Your task to perform on an android device: Clear the shopping cart on newegg.com. Search for "usb-a" on newegg.com, select the first entry, add it to the cart, then select checkout. Image 0: 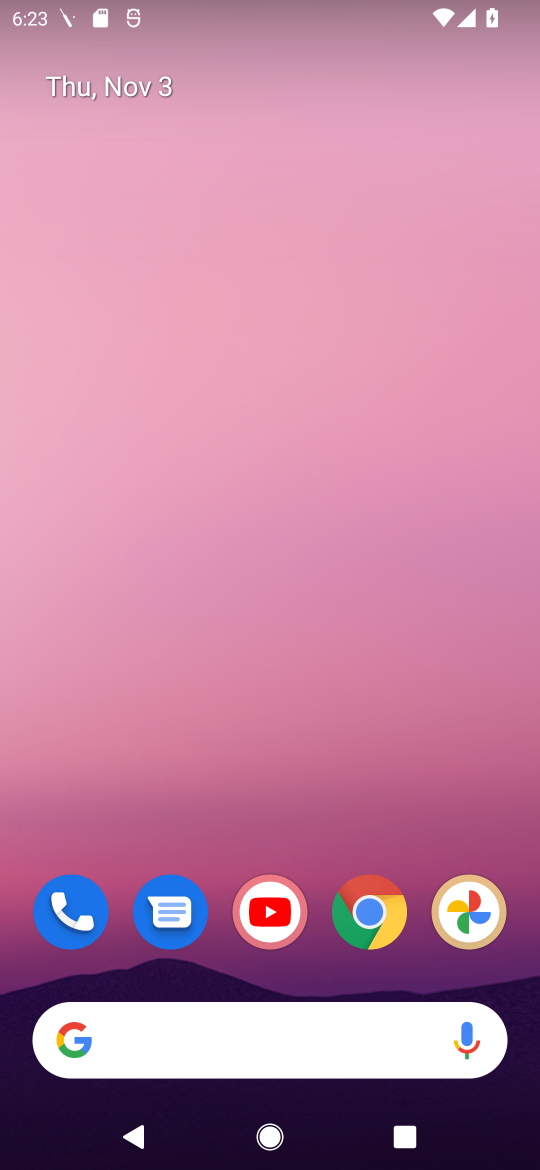
Step 0: click (373, 916)
Your task to perform on an android device: Clear the shopping cart on newegg.com. Search for "usb-a" on newegg.com, select the first entry, add it to the cart, then select checkout. Image 1: 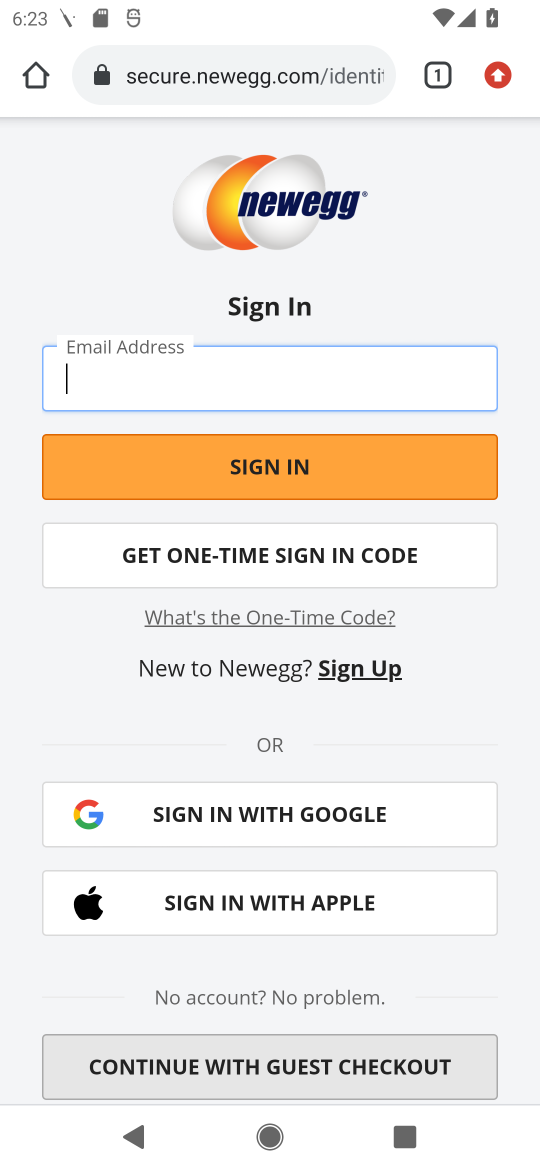
Step 1: press back button
Your task to perform on an android device: Clear the shopping cart on newegg.com. Search for "usb-a" on newegg.com, select the first entry, add it to the cart, then select checkout. Image 2: 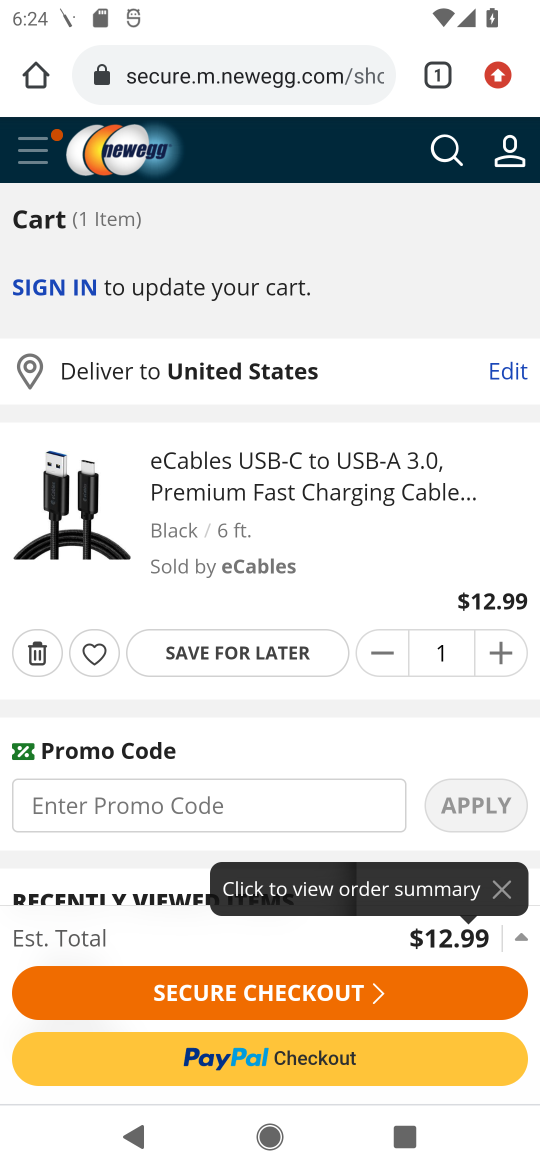
Step 2: click (438, 147)
Your task to perform on an android device: Clear the shopping cart on newegg.com. Search for "usb-a" on newegg.com, select the first entry, add it to the cart, then select checkout. Image 3: 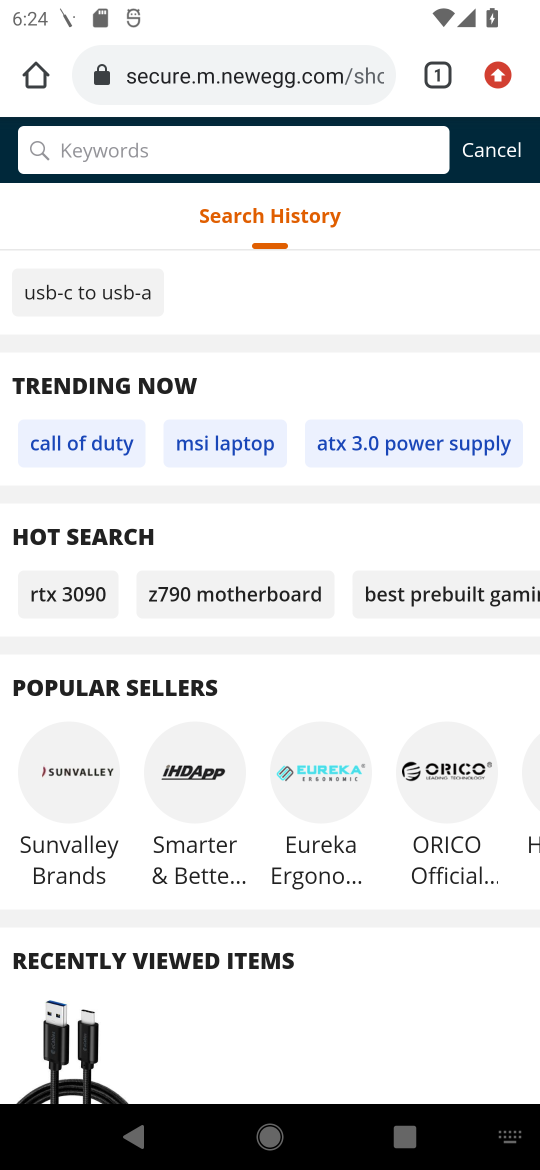
Step 3: click (482, 155)
Your task to perform on an android device: Clear the shopping cart on newegg.com. Search for "usb-a" on newegg.com, select the first entry, add it to the cart, then select checkout. Image 4: 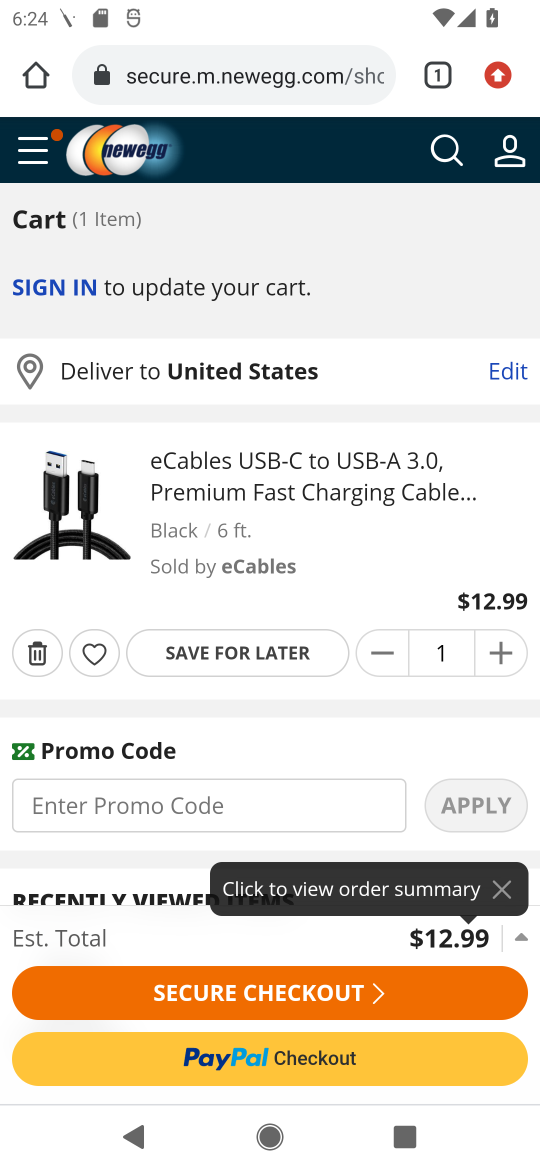
Step 4: click (41, 652)
Your task to perform on an android device: Clear the shopping cart on newegg.com. Search for "usb-a" on newegg.com, select the first entry, add it to the cart, then select checkout. Image 5: 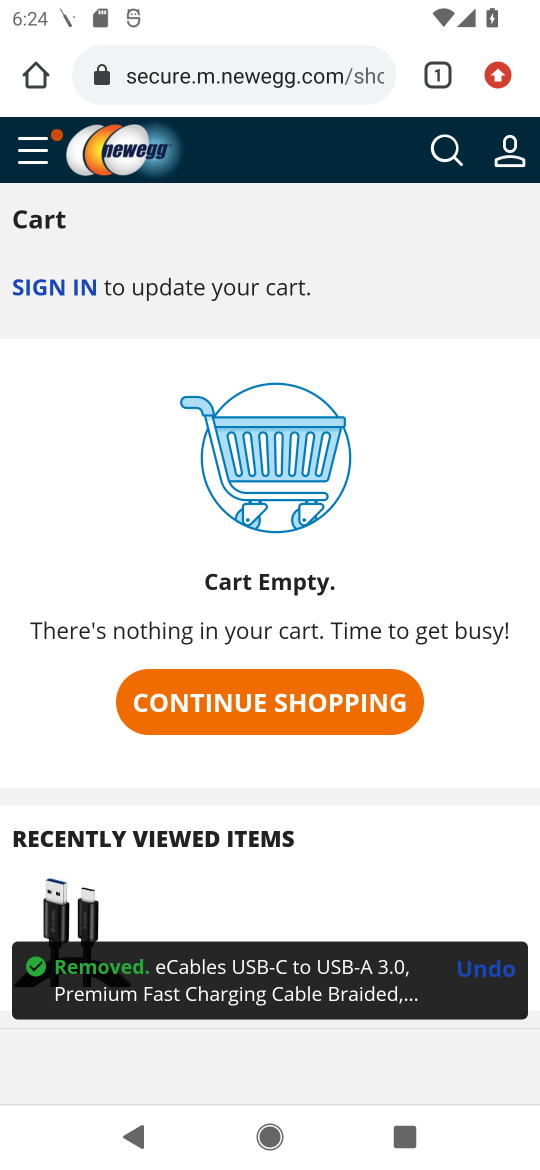
Step 5: click (253, 699)
Your task to perform on an android device: Clear the shopping cart on newegg.com. Search for "usb-a" on newegg.com, select the first entry, add it to the cart, then select checkout. Image 6: 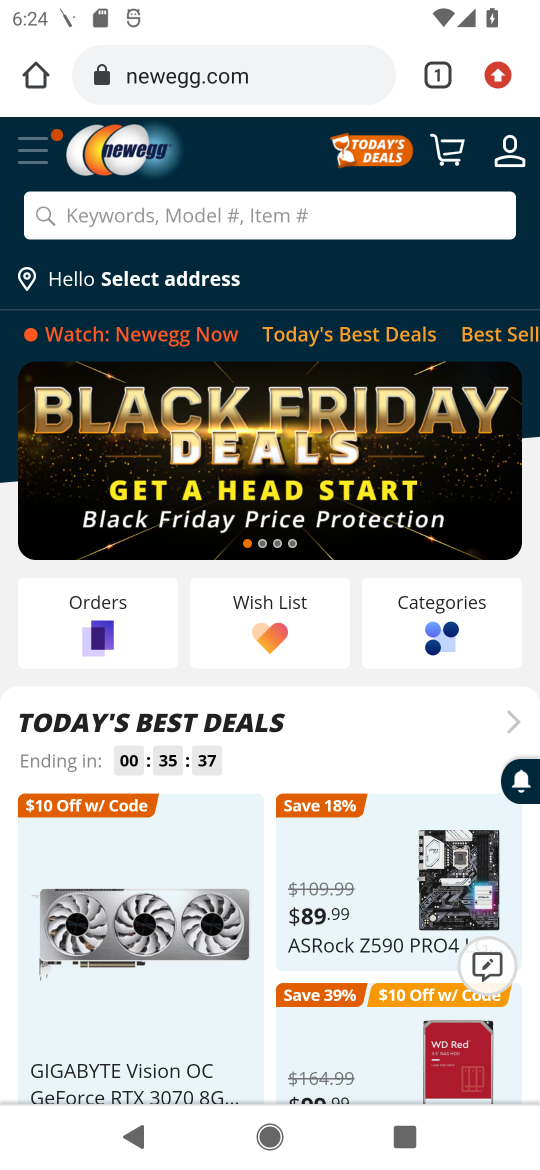
Step 6: click (217, 206)
Your task to perform on an android device: Clear the shopping cart on newegg.com. Search for "usb-a" on newegg.com, select the first entry, add it to the cart, then select checkout. Image 7: 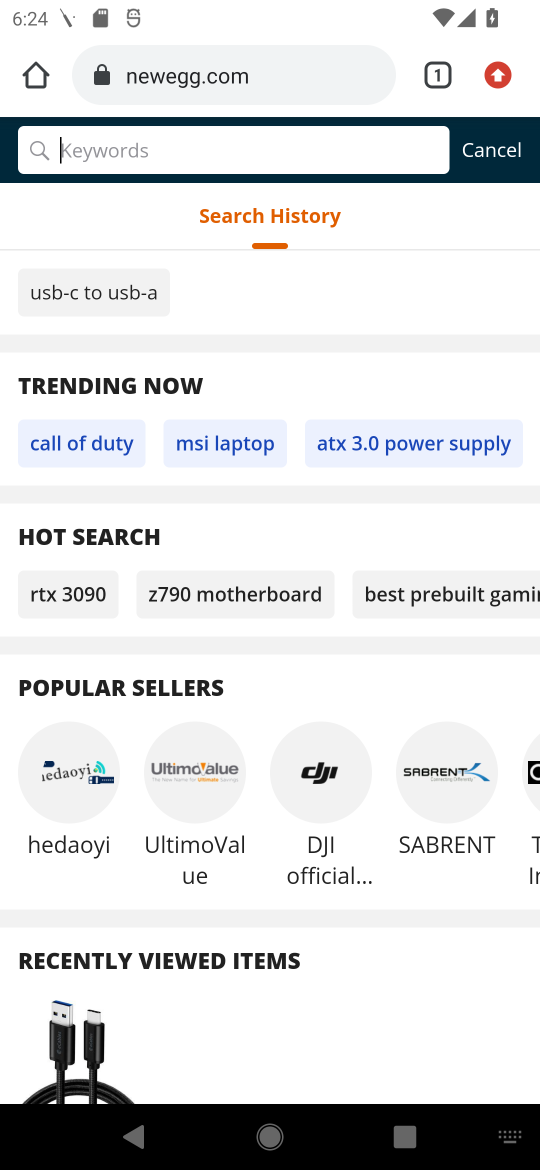
Step 7: type "usb-a"
Your task to perform on an android device: Clear the shopping cart on newegg.com. Search for "usb-a" on newegg.com, select the first entry, add it to the cart, then select checkout. Image 8: 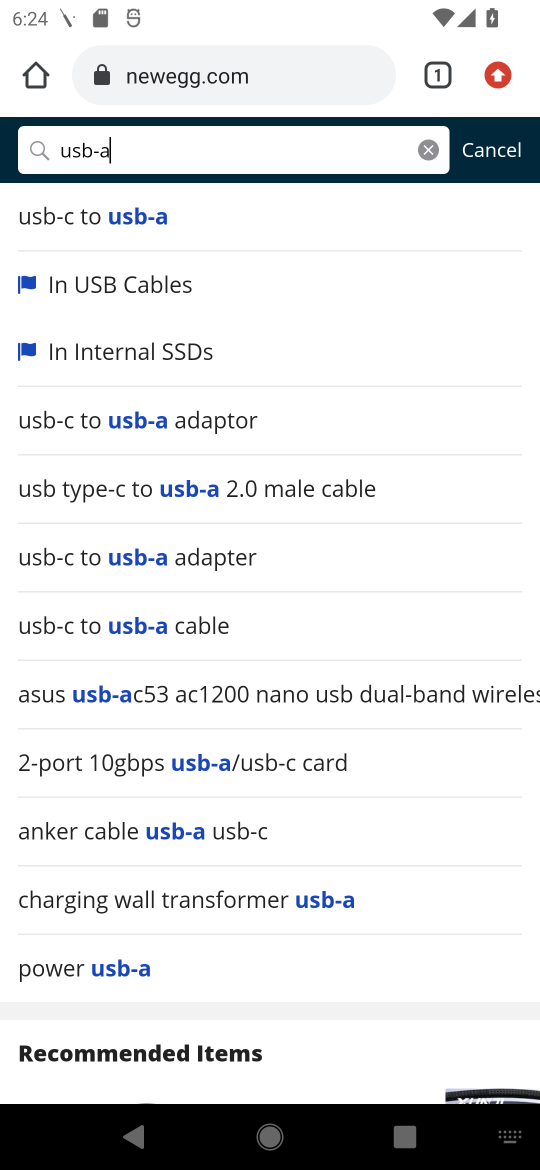
Step 8: click (65, 211)
Your task to perform on an android device: Clear the shopping cart on newegg.com. Search for "usb-a" on newegg.com, select the first entry, add it to the cart, then select checkout. Image 9: 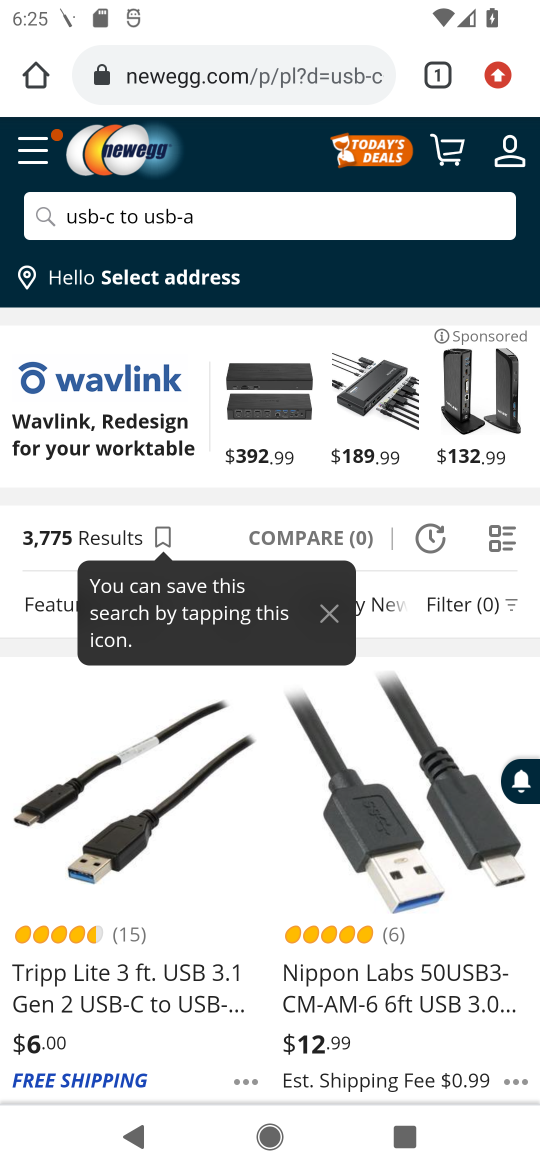
Step 9: drag from (241, 1036) to (224, 460)
Your task to perform on an android device: Clear the shopping cart on newegg.com. Search for "usb-a" on newegg.com, select the first entry, add it to the cart, then select checkout. Image 10: 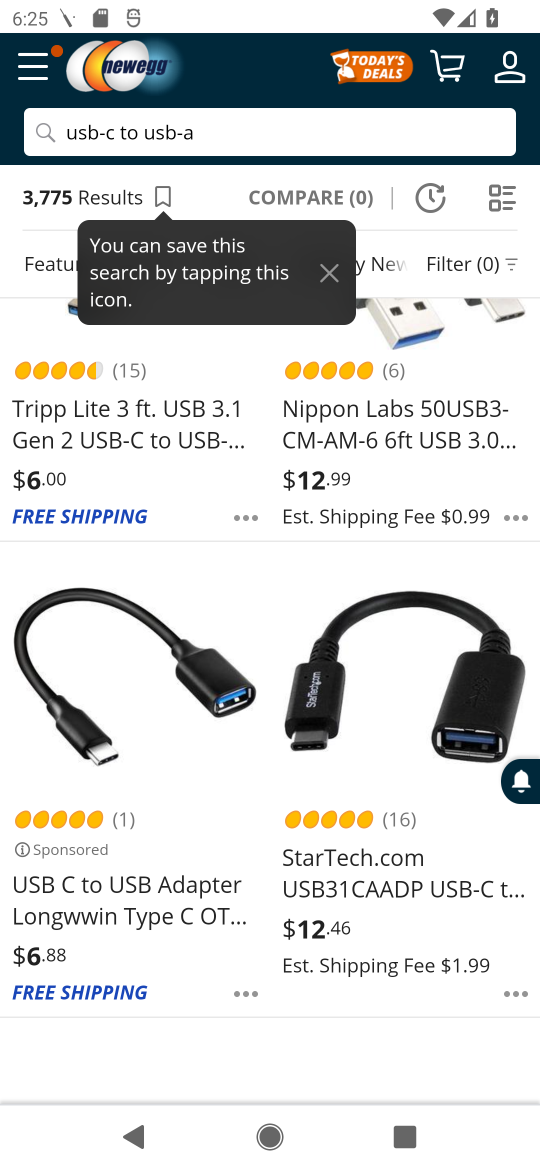
Step 10: drag from (257, 1003) to (254, 467)
Your task to perform on an android device: Clear the shopping cart on newegg.com. Search for "usb-a" on newegg.com, select the first entry, add it to the cart, then select checkout. Image 11: 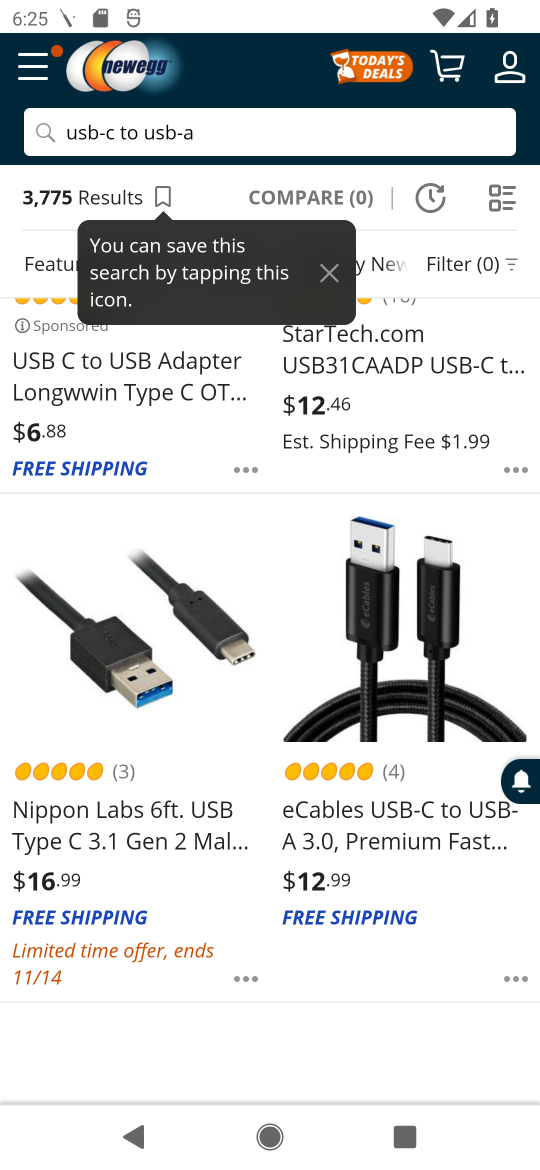
Step 11: drag from (245, 525) to (188, 1123)
Your task to perform on an android device: Clear the shopping cart on newegg.com. Search for "usb-a" on newegg.com, select the first entry, add it to the cart, then select checkout. Image 12: 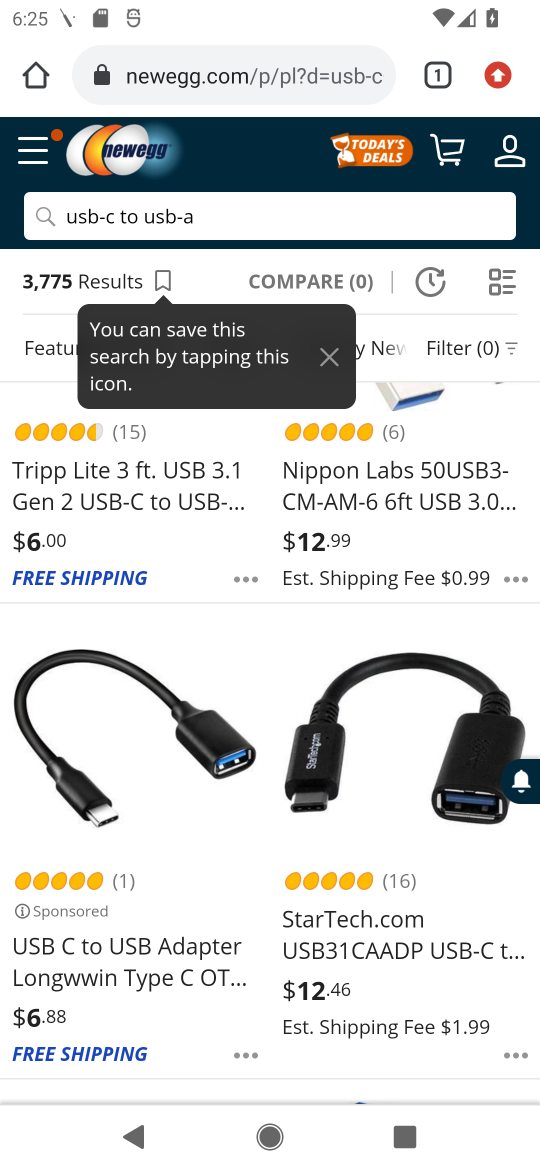
Step 12: drag from (261, 436) to (237, 921)
Your task to perform on an android device: Clear the shopping cart on newegg.com. Search for "usb-a" on newegg.com, select the first entry, add it to the cart, then select checkout. Image 13: 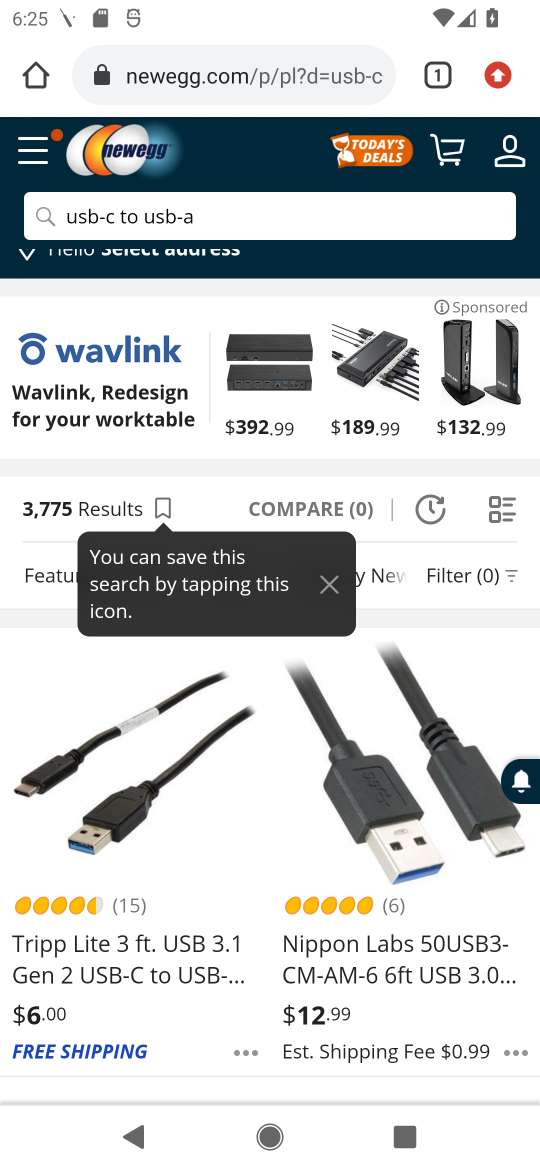
Step 13: click (111, 816)
Your task to perform on an android device: Clear the shopping cart on newegg.com. Search for "usb-a" on newegg.com, select the first entry, add it to the cart, then select checkout. Image 14: 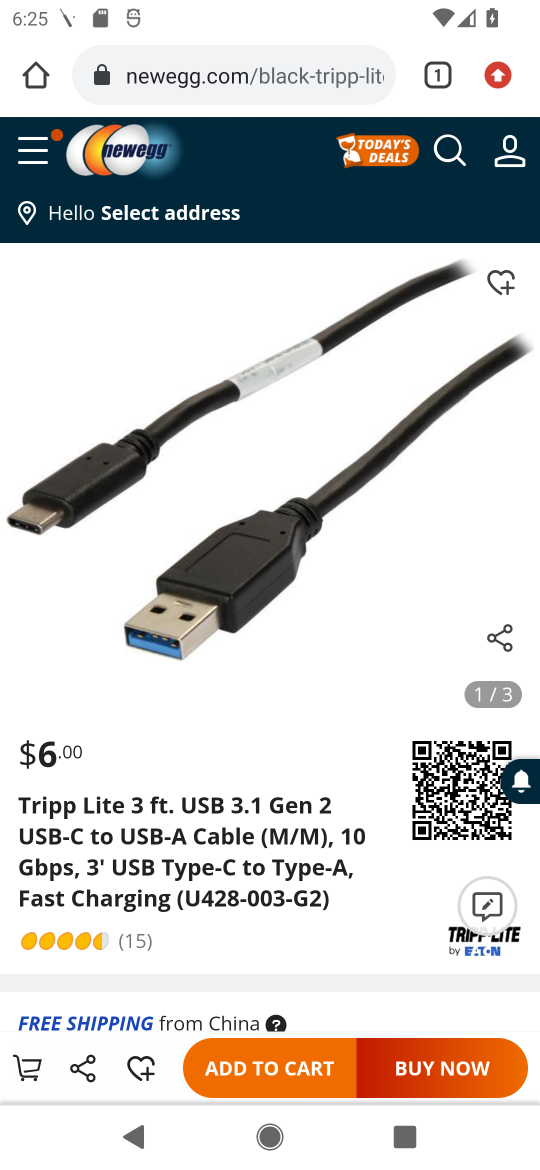
Step 14: drag from (262, 963) to (330, 564)
Your task to perform on an android device: Clear the shopping cart on newegg.com. Search for "usb-a" on newegg.com, select the first entry, add it to the cart, then select checkout. Image 15: 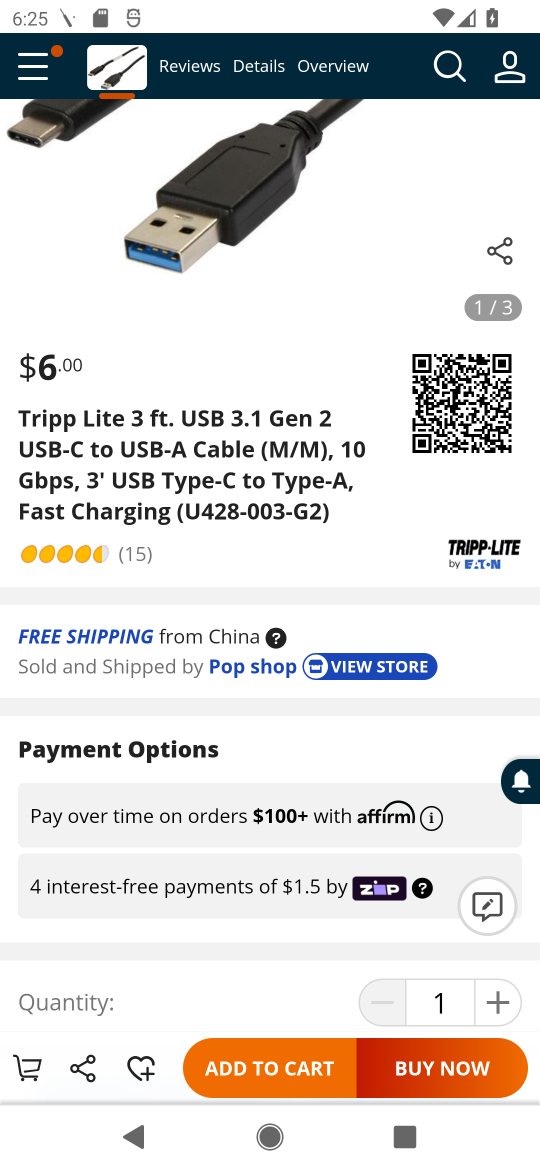
Step 15: click (271, 1067)
Your task to perform on an android device: Clear the shopping cart on newegg.com. Search for "usb-a" on newegg.com, select the first entry, add it to the cart, then select checkout. Image 16: 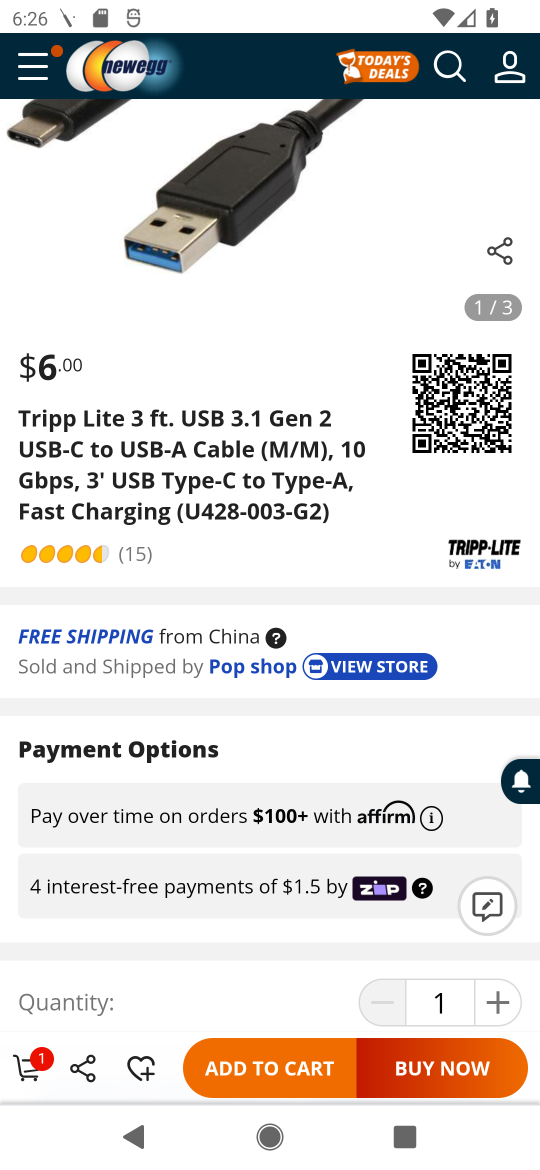
Step 16: click (32, 1059)
Your task to perform on an android device: Clear the shopping cart on newegg.com. Search for "usb-a" on newegg.com, select the first entry, add it to the cart, then select checkout. Image 17: 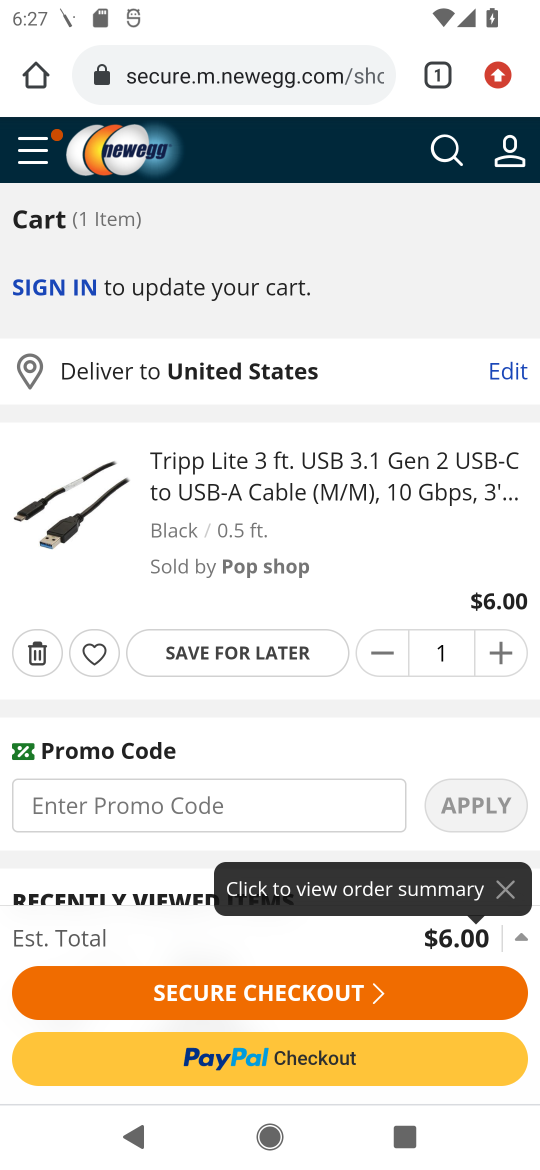
Step 17: click (267, 993)
Your task to perform on an android device: Clear the shopping cart on newegg.com. Search for "usb-a" on newegg.com, select the first entry, add it to the cart, then select checkout. Image 18: 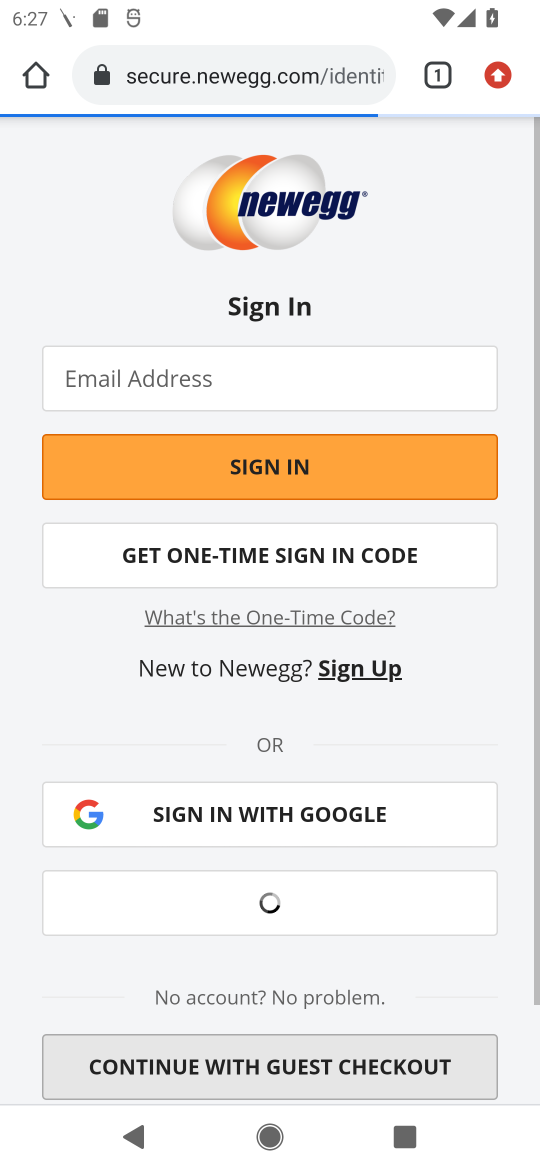
Step 18: task complete